Your task to perform on an android device: turn off notifications settings in the gmail app Image 0: 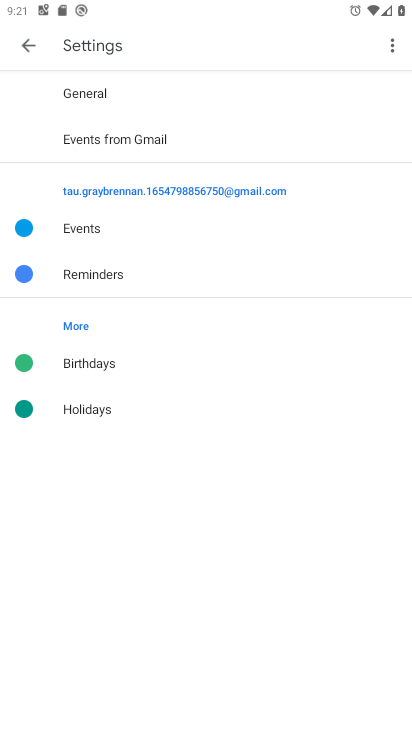
Step 0: click (23, 45)
Your task to perform on an android device: turn off notifications settings in the gmail app Image 1: 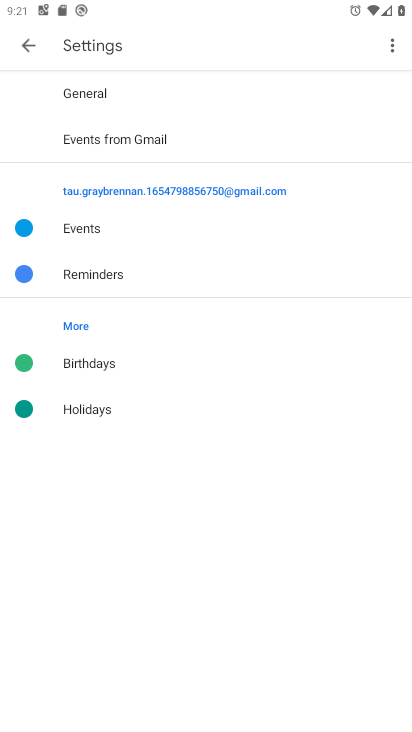
Step 1: click (31, 50)
Your task to perform on an android device: turn off notifications settings in the gmail app Image 2: 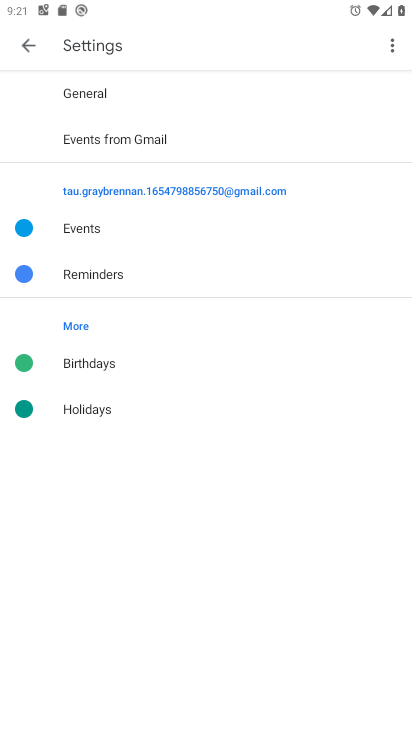
Step 2: press home button
Your task to perform on an android device: turn off notifications settings in the gmail app Image 3: 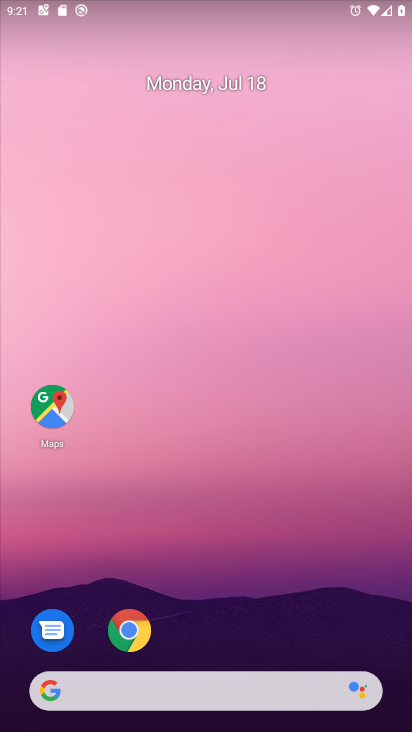
Step 3: drag from (173, 628) to (183, 182)
Your task to perform on an android device: turn off notifications settings in the gmail app Image 4: 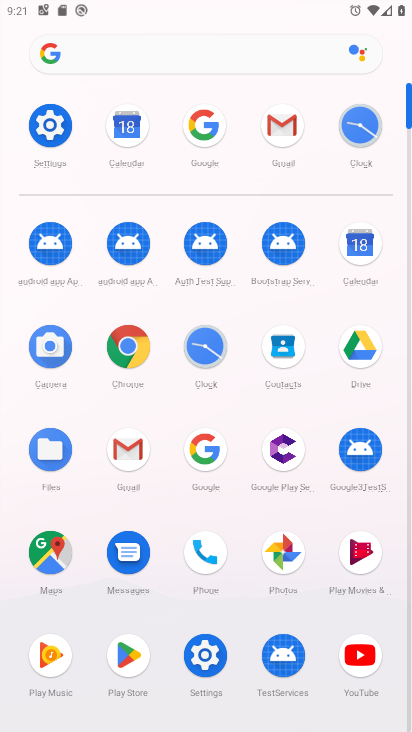
Step 4: click (269, 127)
Your task to perform on an android device: turn off notifications settings in the gmail app Image 5: 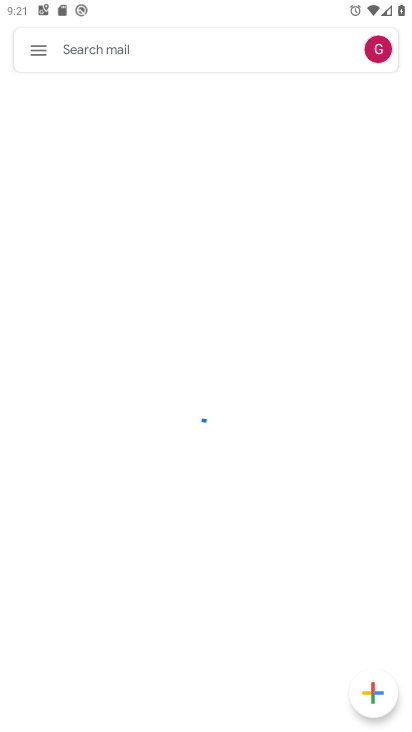
Step 5: click (44, 43)
Your task to perform on an android device: turn off notifications settings in the gmail app Image 6: 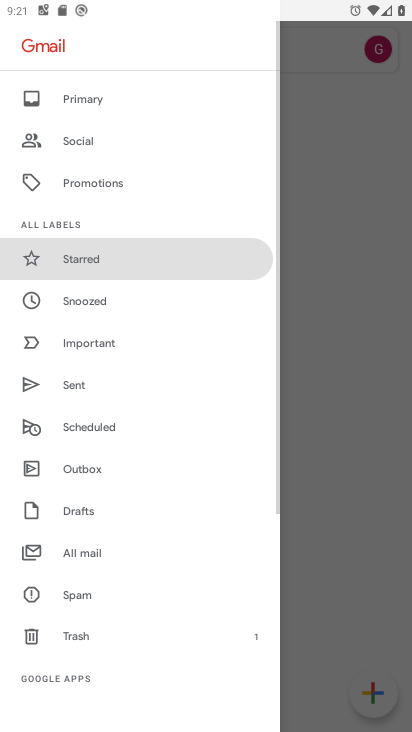
Step 6: drag from (113, 633) to (119, 285)
Your task to perform on an android device: turn off notifications settings in the gmail app Image 7: 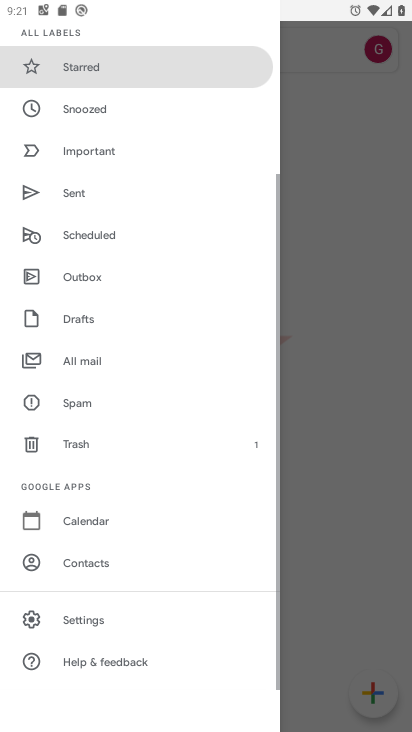
Step 7: click (98, 620)
Your task to perform on an android device: turn off notifications settings in the gmail app Image 8: 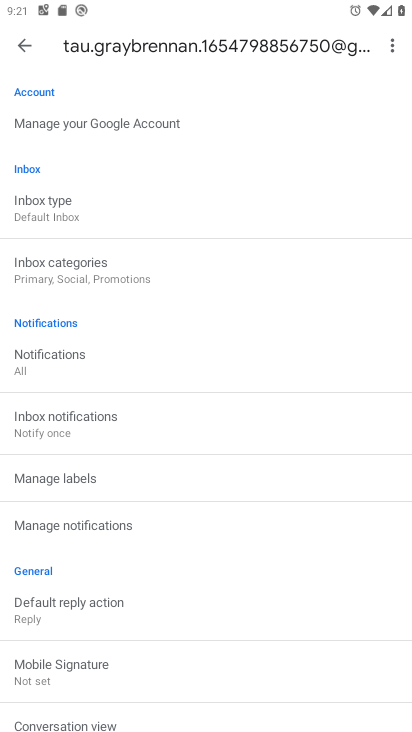
Step 8: click (141, 525)
Your task to perform on an android device: turn off notifications settings in the gmail app Image 9: 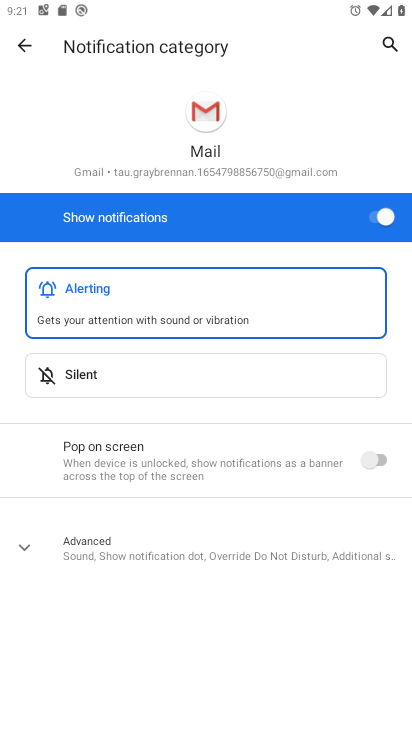
Step 9: click (369, 202)
Your task to perform on an android device: turn off notifications settings in the gmail app Image 10: 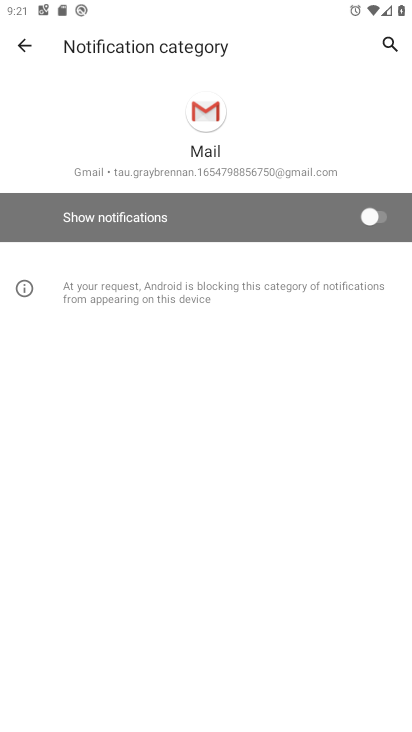
Step 10: task complete